Your task to perform on an android device: turn off sleep mode Image 0: 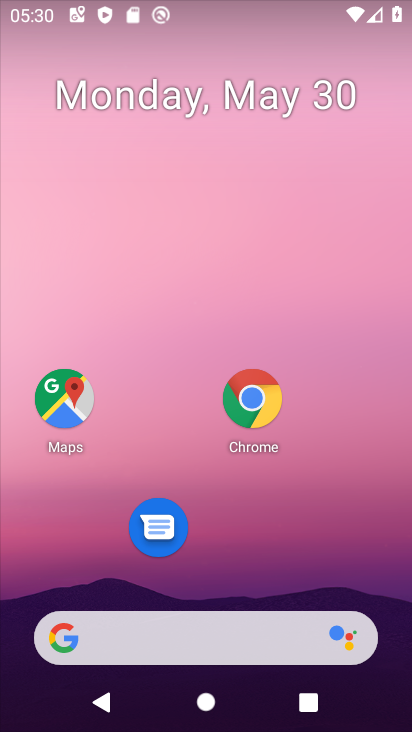
Step 0: drag from (229, 726) to (227, 163)
Your task to perform on an android device: turn off sleep mode Image 1: 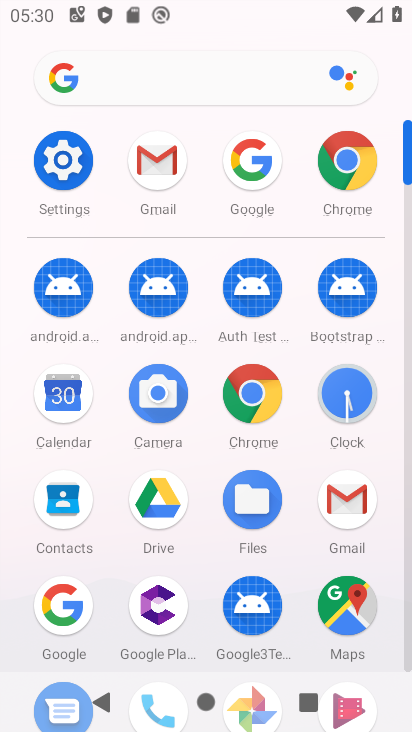
Step 1: click (58, 155)
Your task to perform on an android device: turn off sleep mode Image 2: 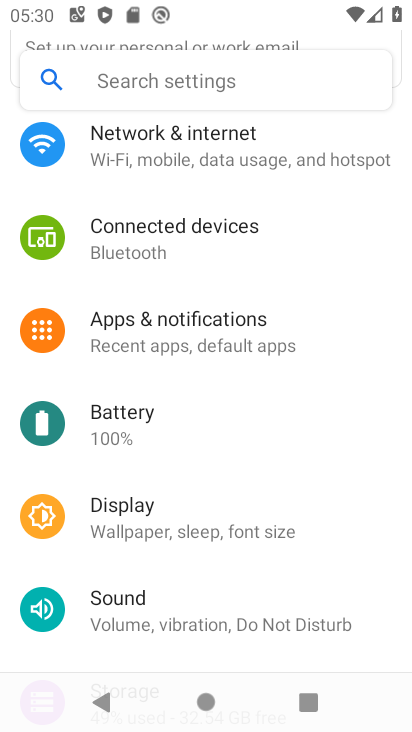
Step 2: click (211, 528)
Your task to perform on an android device: turn off sleep mode Image 3: 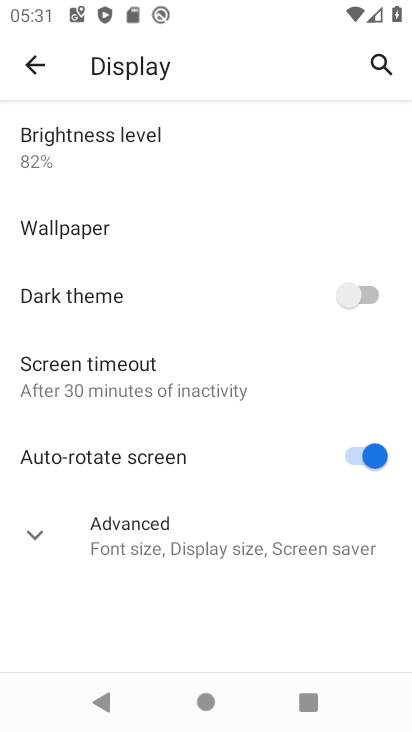
Step 3: task complete